Your task to perform on an android device: open app "VLC for Android" Image 0: 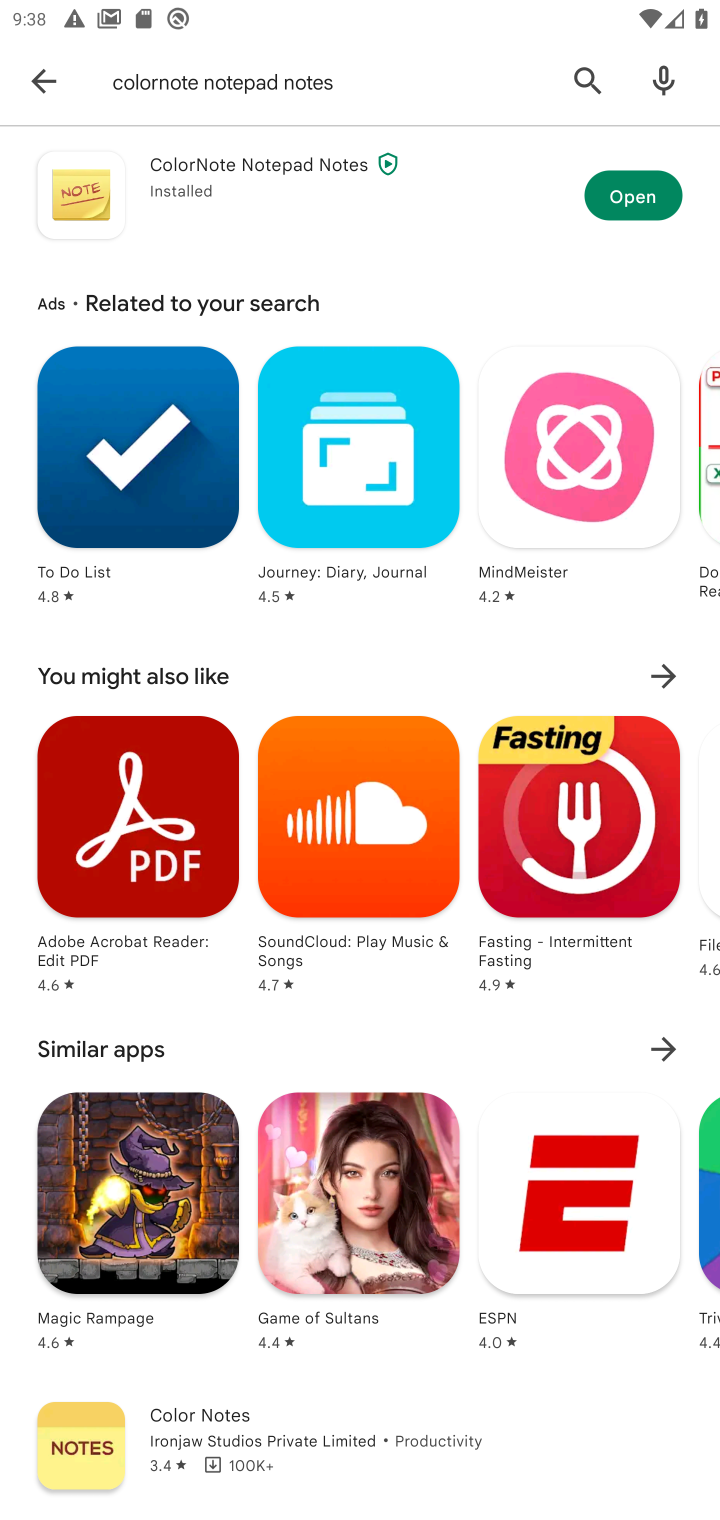
Step 0: click (101, 94)
Your task to perform on an android device: open app "VLC for Android" Image 1: 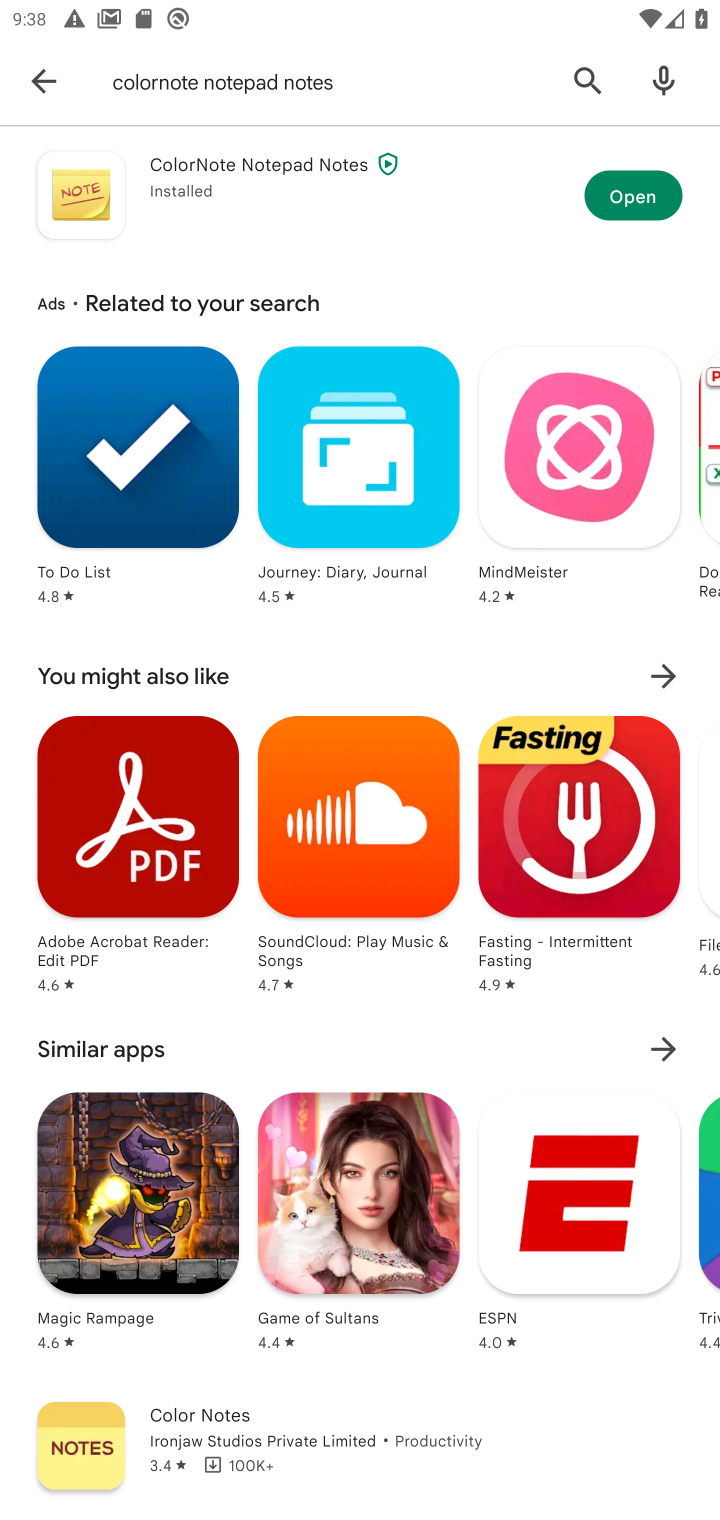
Step 1: click (58, 85)
Your task to perform on an android device: open app "VLC for Android" Image 2: 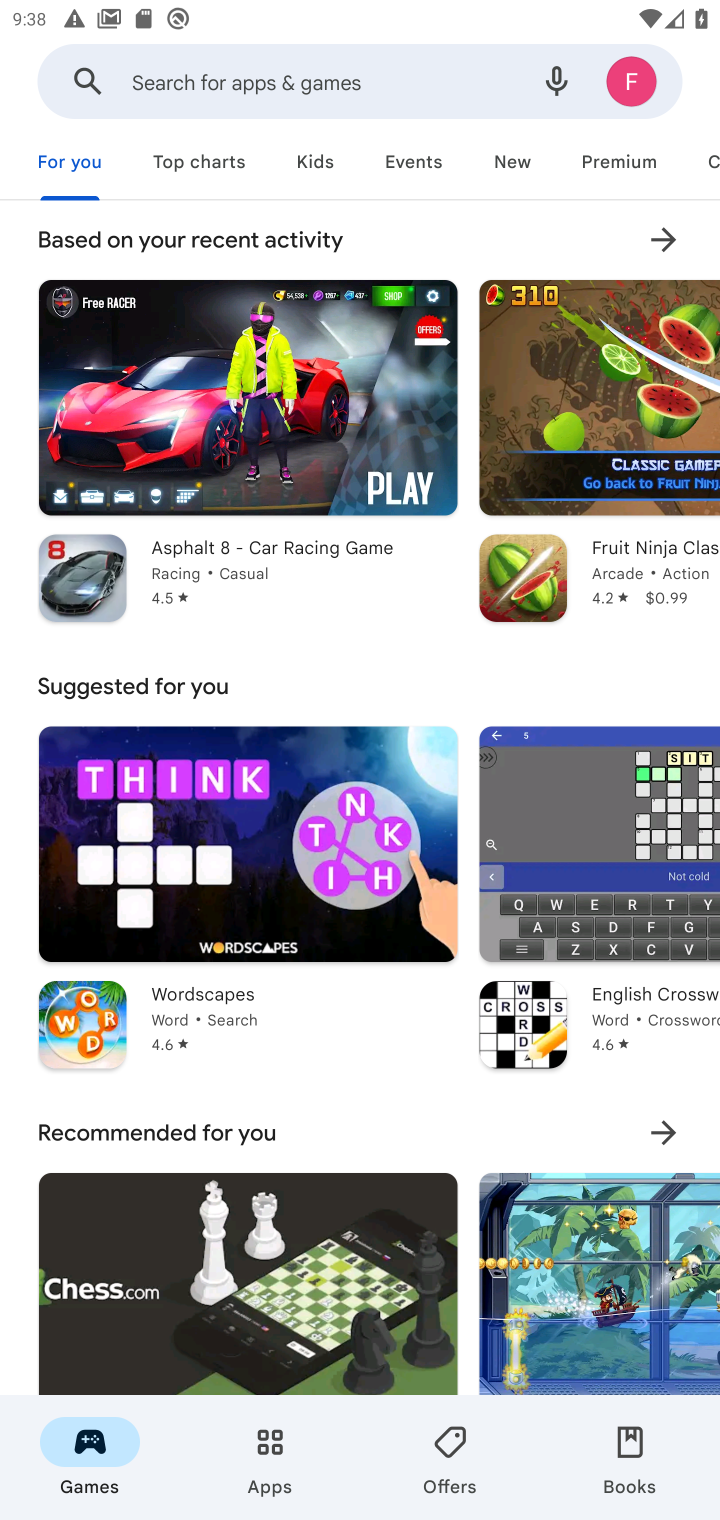
Step 2: click (415, 91)
Your task to perform on an android device: open app "VLC for Android" Image 3: 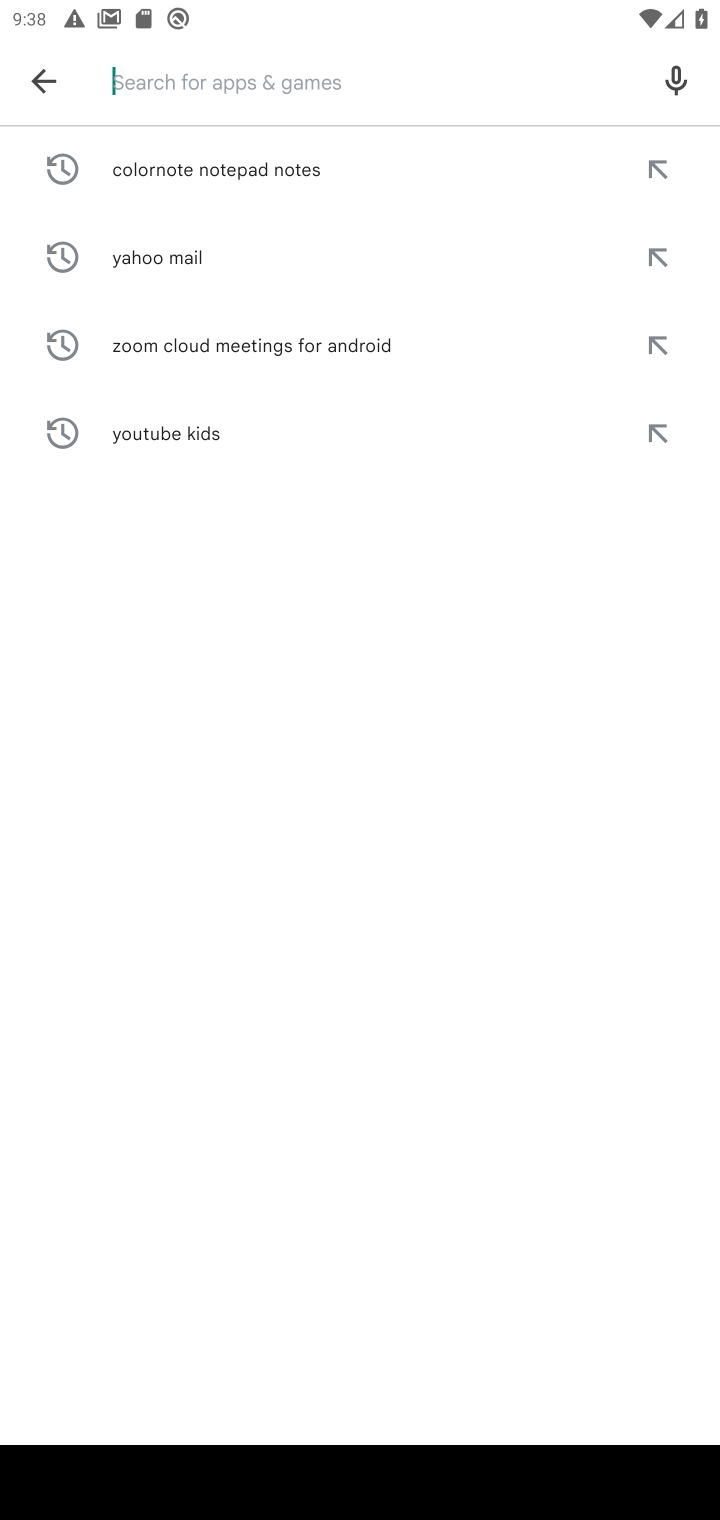
Step 3: type "VLC for Android"
Your task to perform on an android device: open app "VLC for Android" Image 4: 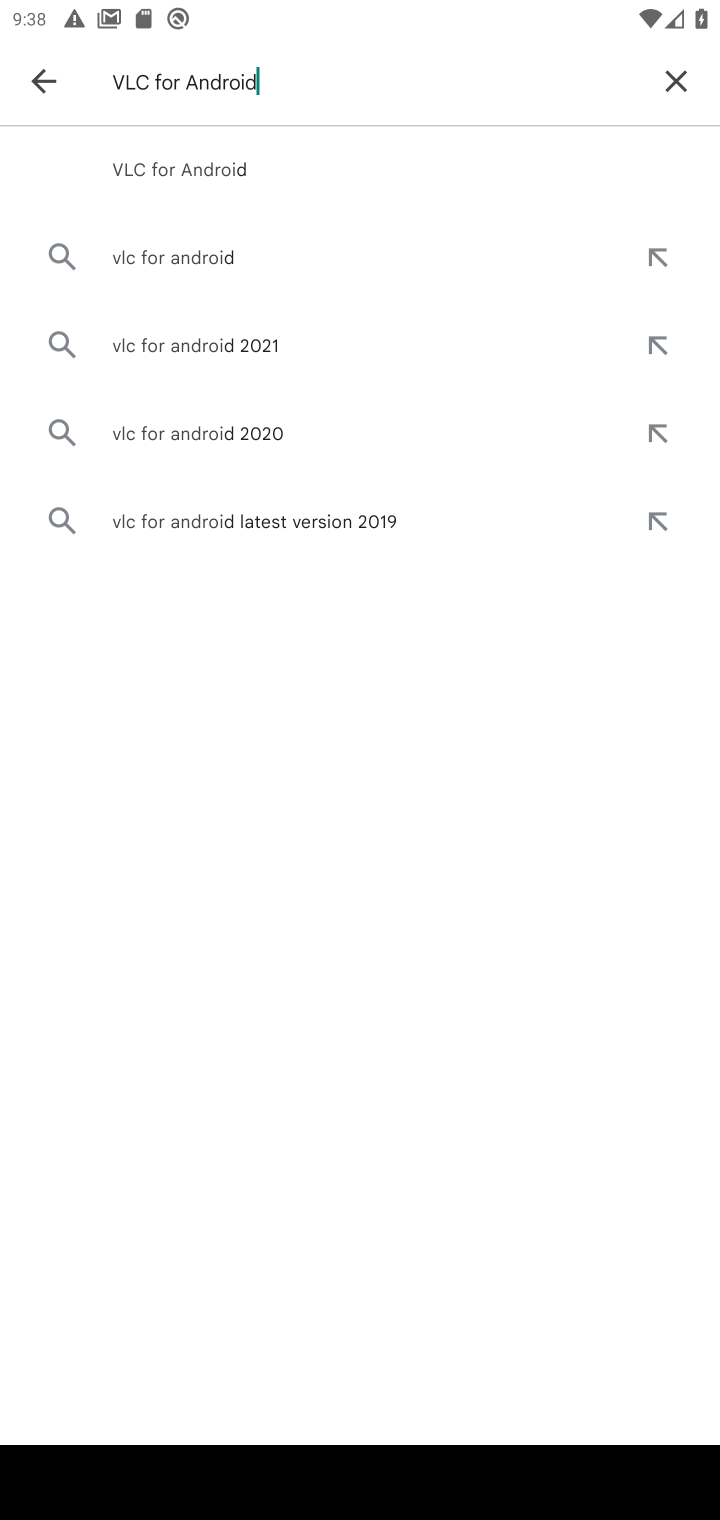
Step 4: type ""
Your task to perform on an android device: open app "VLC for Android" Image 5: 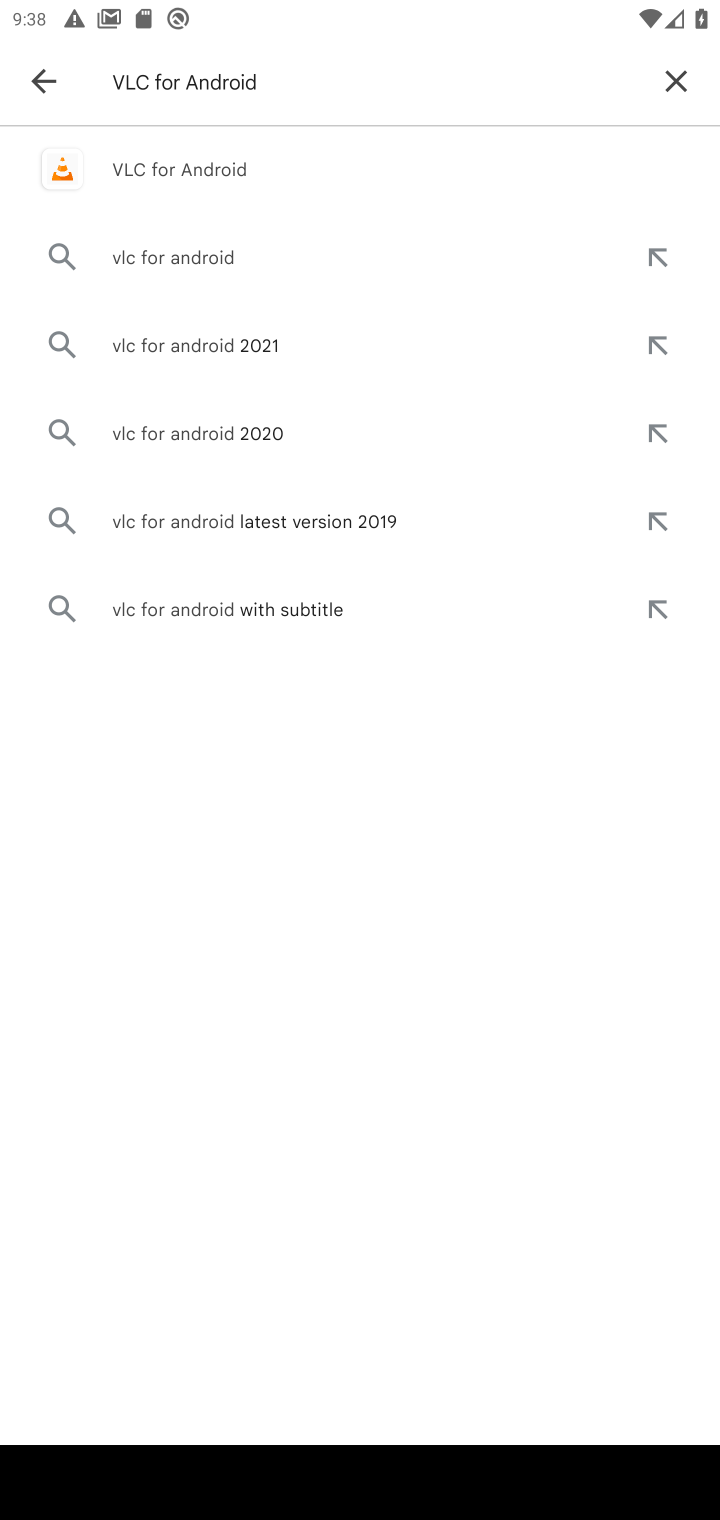
Step 5: click (170, 174)
Your task to perform on an android device: open app "VLC for Android" Image 6: 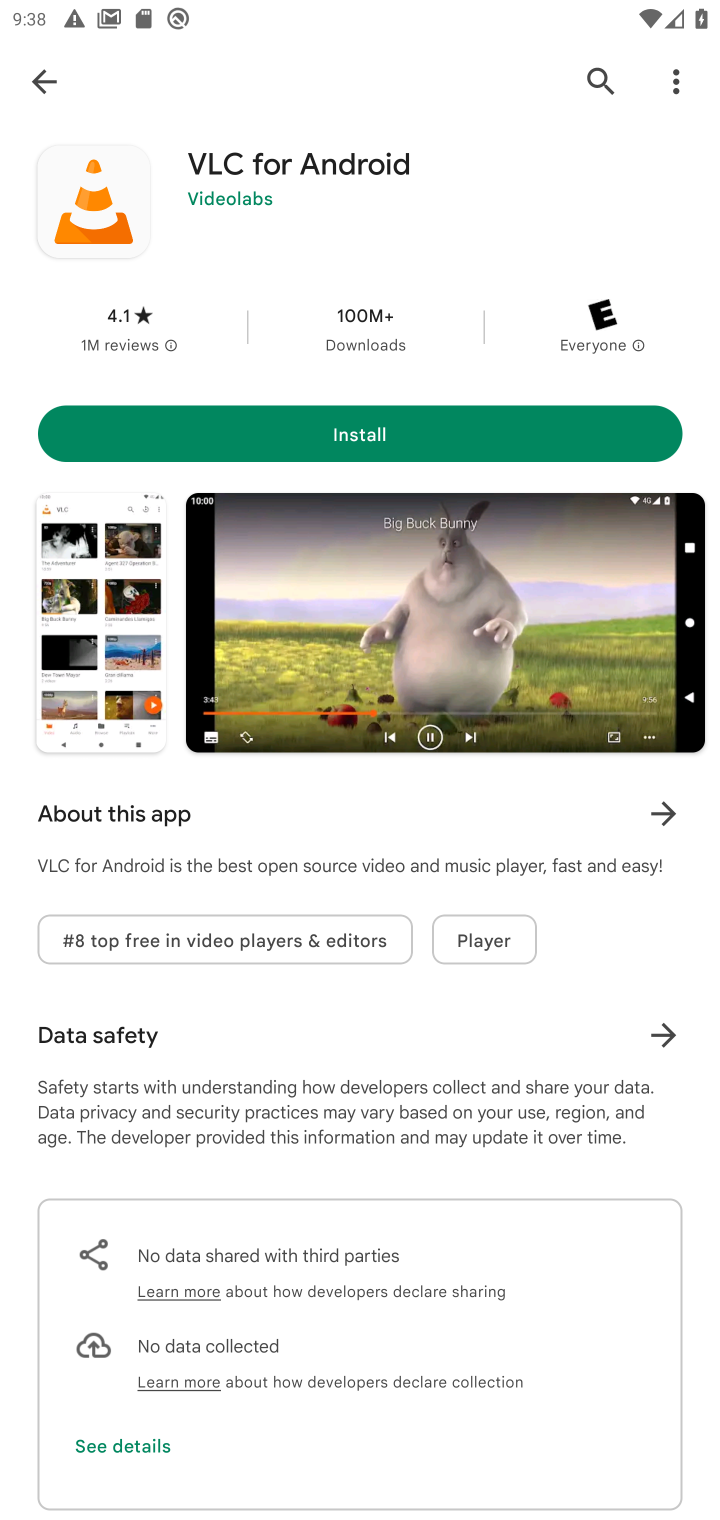
Step 6: task complete